Your task to perform on an android device: open app "Google Find My Device" Image 0: 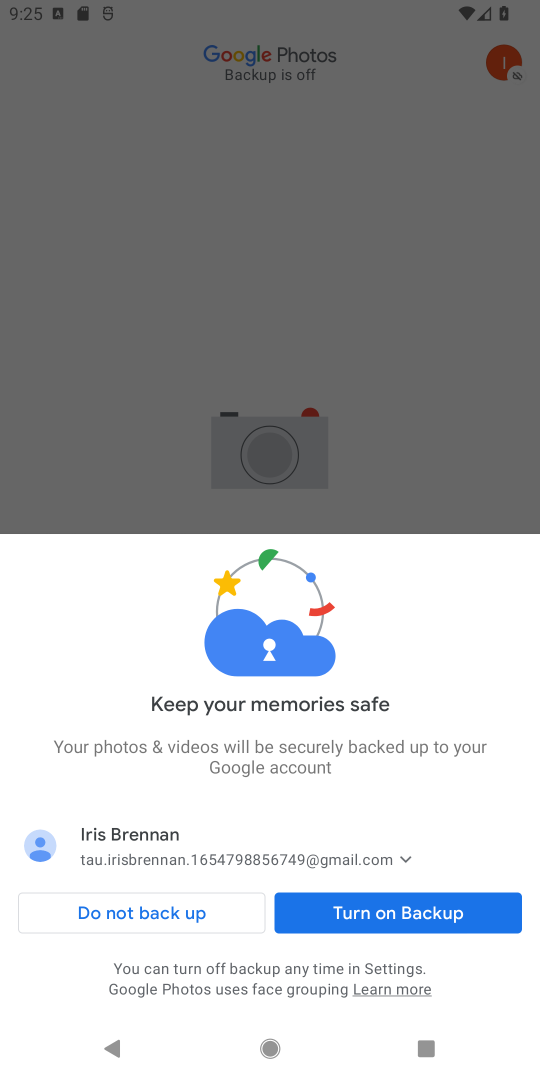
Step 0: press home button
Your task to perform on an android device: open app "Google Find My Device" Image 1: 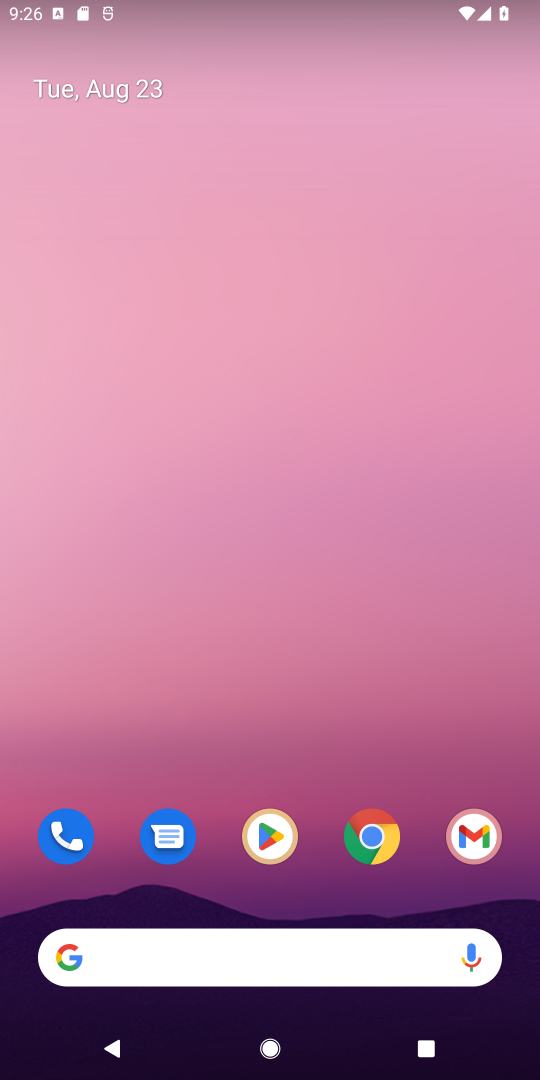
Step 1: click (277, 835)
Your task to perform on an android device: open app "Google Find My Device" Image 2: 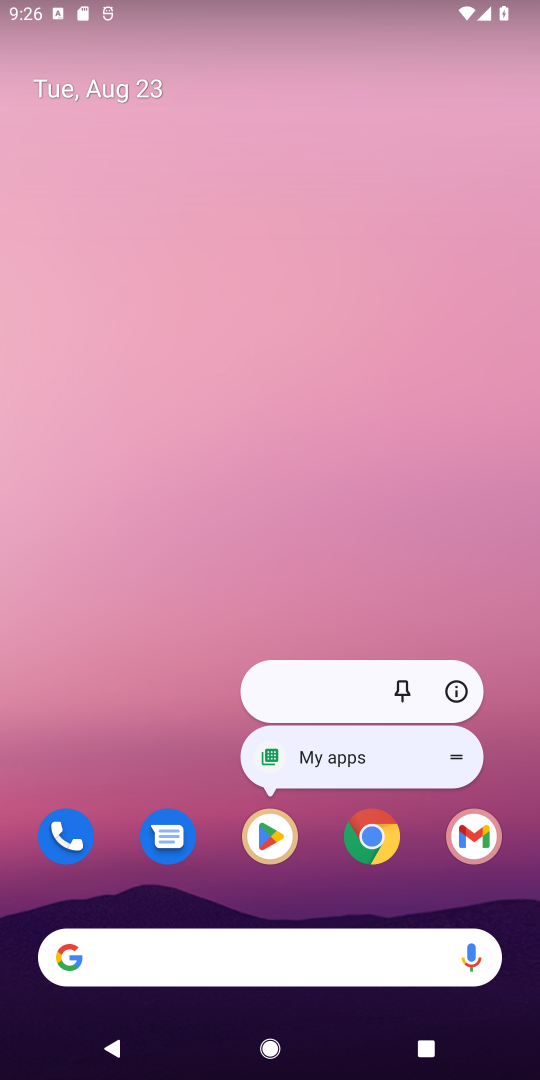
Step 2: click (277, 843)
Your task to perform on an android device: open app "Google Find My Device" Image 3: 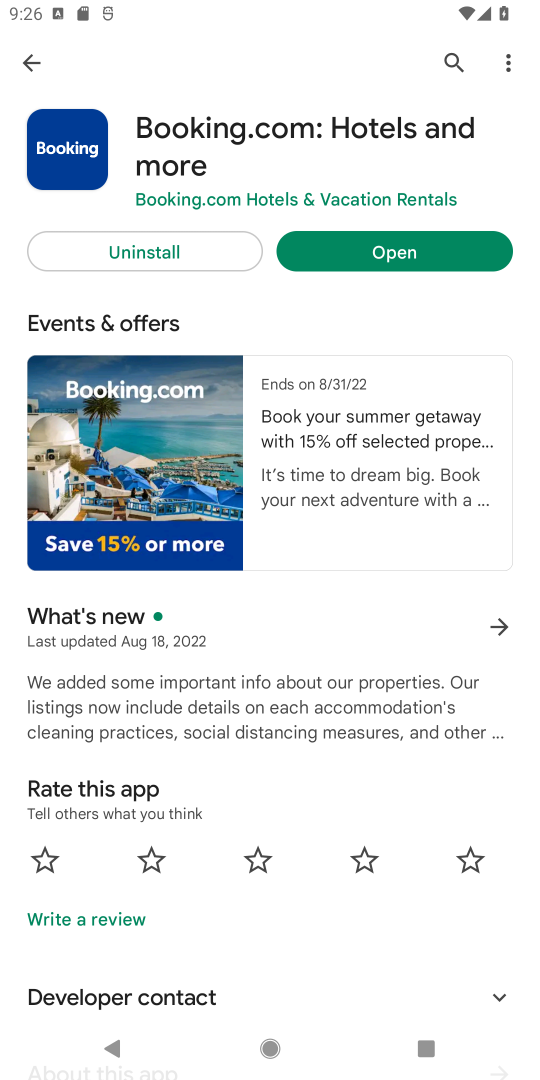
Step 3: click (444, 56)
Your task to perform on an android device: open app "Google Find My Device" Image 4: 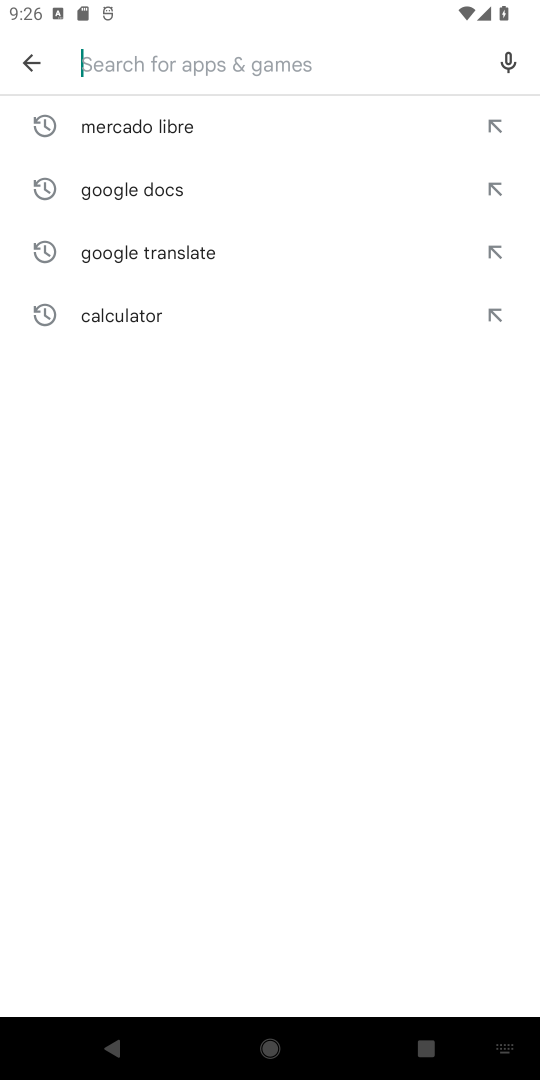
Step 4: type "Google Find My Device"
Your task to perform on an android device: open app "Google Find My Device" Image 5: 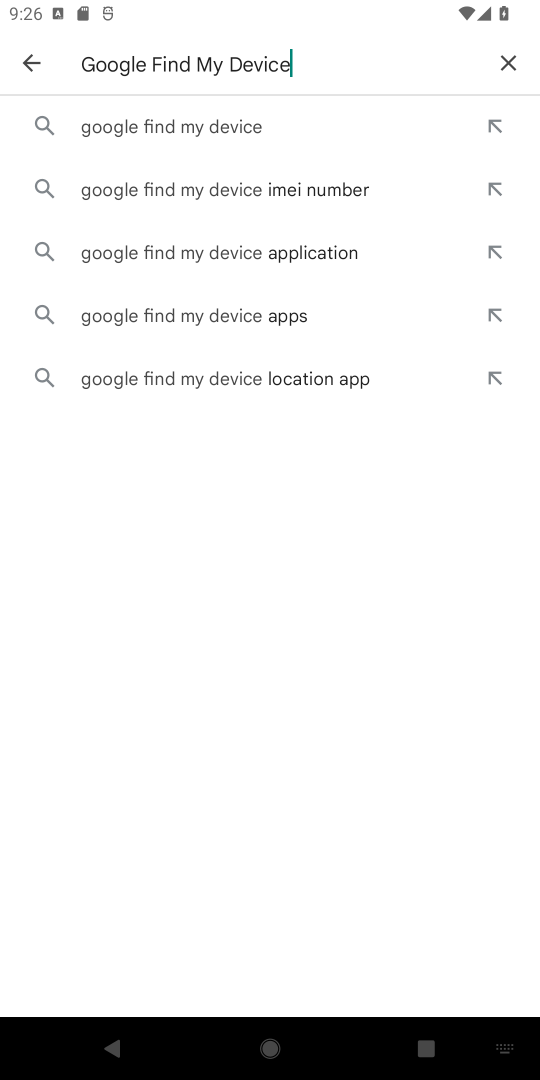
Step 5: click (136, 128)
Your task to perform on an android device: open app "Google Find My Device" Image 6: 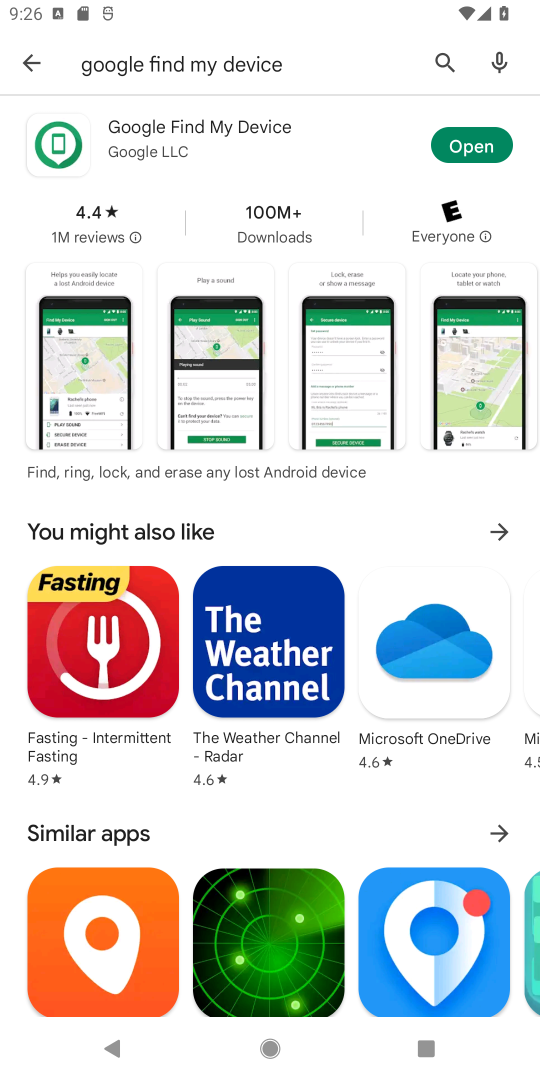
Step 6: click (492, 142)
Your task to perform on an android device: open app "Google Find My Device" Image 7: 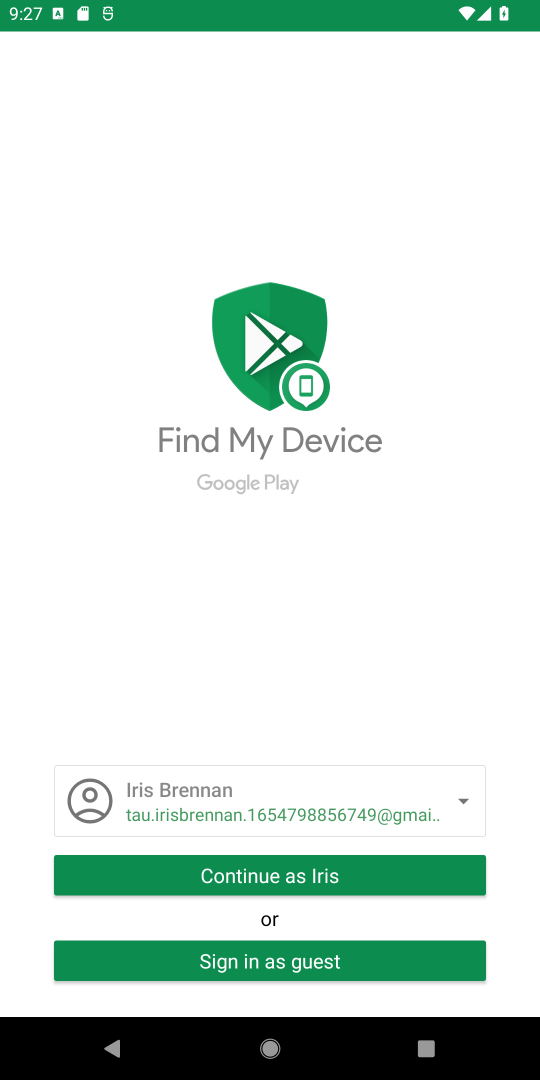
Step 7: task complete